Your task to perform on an android device: allow notifications from all sites in the chrome app Image 0: 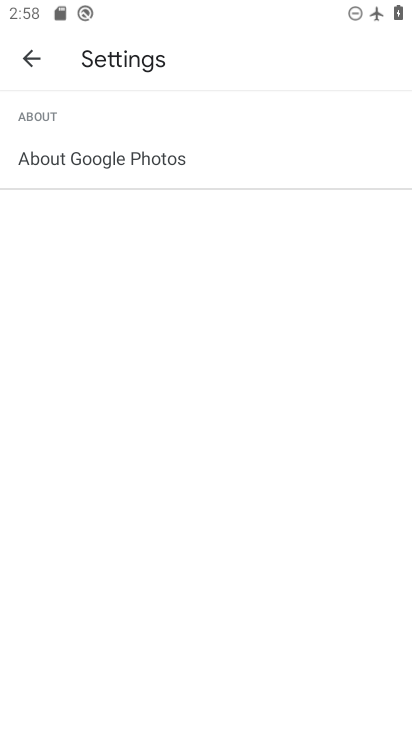
Step 0: press home button
Your task to perform on an android device: allow notifications from all sites in the chrome app Image 1: 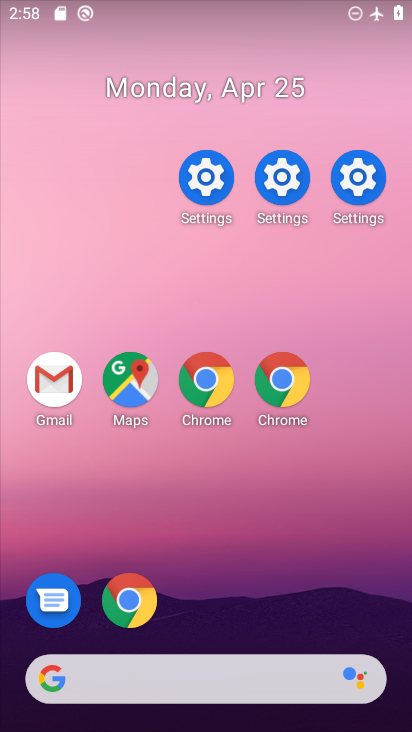
Step 1: drag from (264, 615) to (160, 5)
Your task to perform on an android device: allow notifications from all sites in the chrome app Image 2: 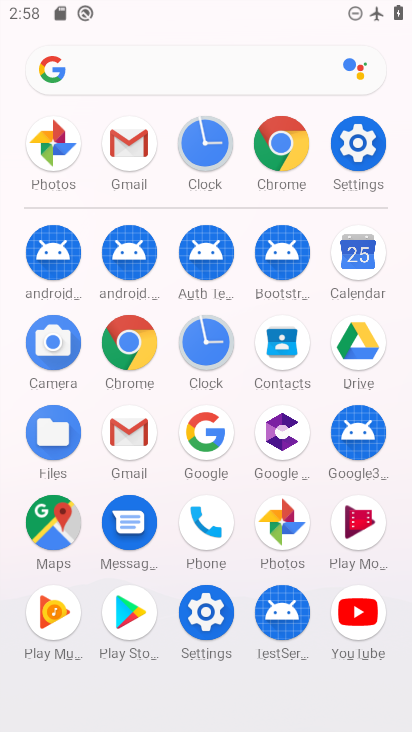
Step 2: click (283, 136)
Your task to perform on an android device: allow notifications from all sites in the chrome app Image 3: 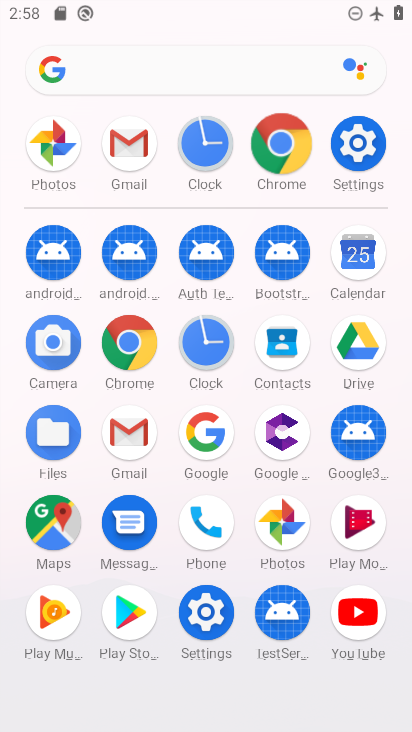
Step 3: click (283, 136)
Your task to perform on an android device: allow notifications from all sites in the chrome app Image 4: 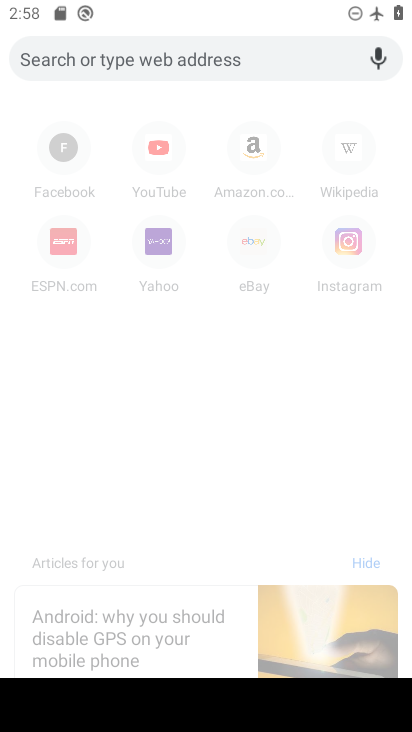
Step 4: press back button
Your task to perform on an android device: allow notifications from all sites in the chrome app Image 5: 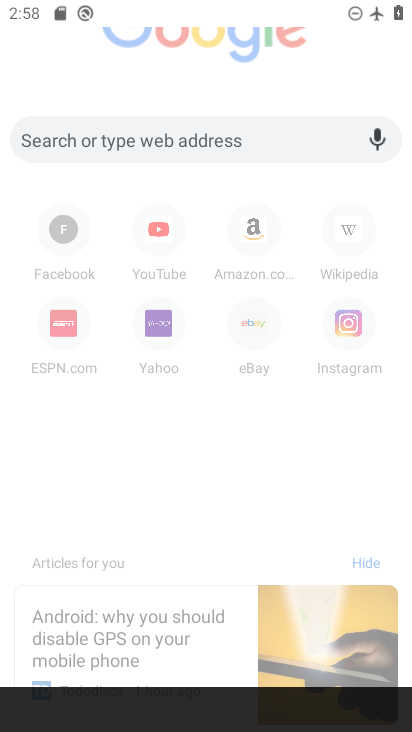
Step 5: press back button
Your task to perform on an android device: allow notifications from all sites in the chrome app Image 6: 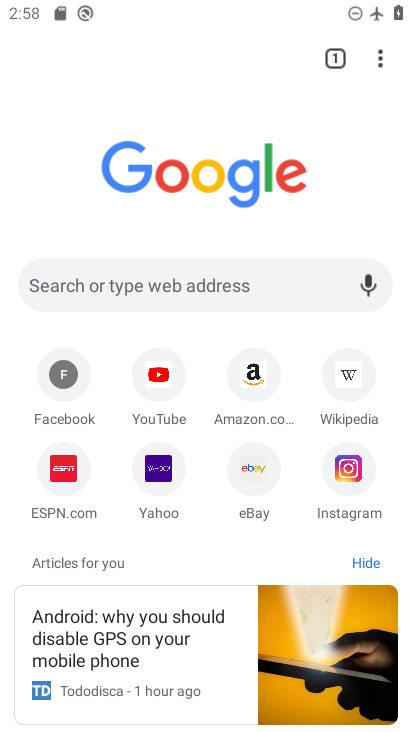
Step 6: press back button
Your task to perform on an android device: allow notifications from all sites in the chrome app Image 7: 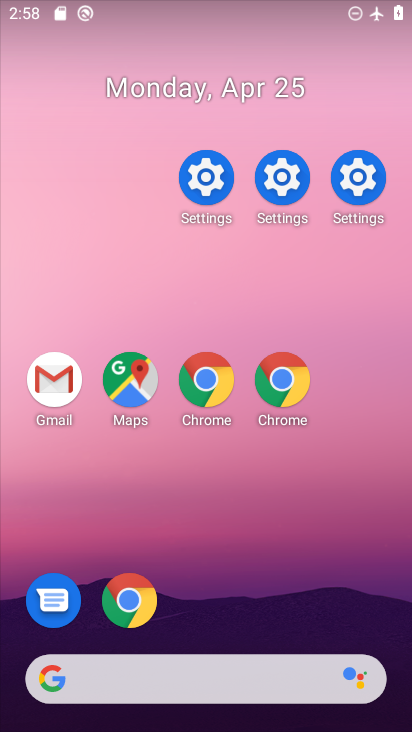
Step 7: drag from (363, 628) to (150, 58)
Your task to perform on an android device: allow notifications from all sites in the chrome app Image 8: 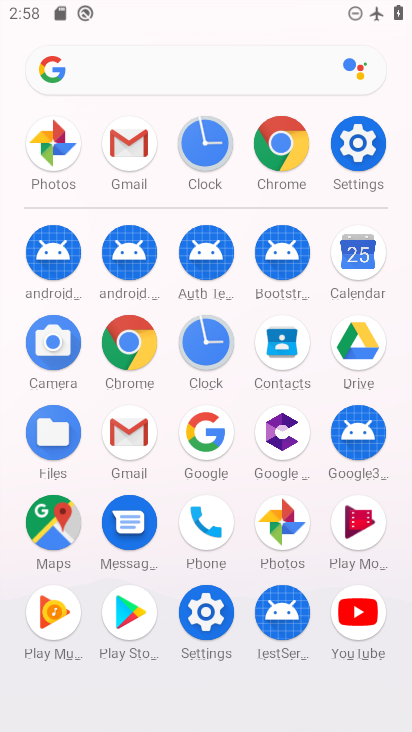
Step 8: click (281, 150)
Your task to perform on an android device: allow notifications from all sites in the chrome app Image 9: 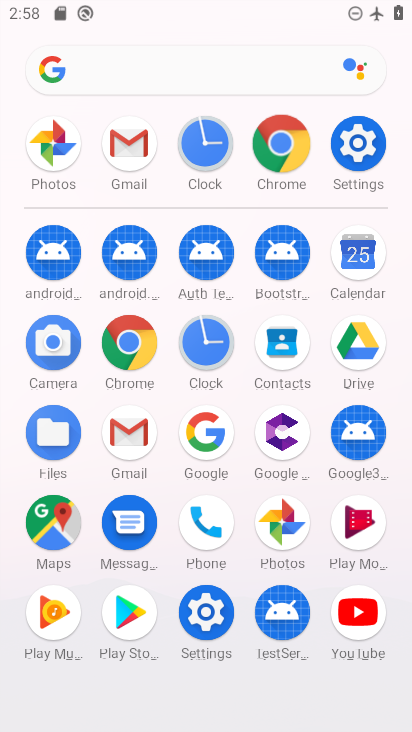
Step 9: click (281, 150)
Your task to perform on an android device: allow notifications from all sites in the chrome app Image 10: 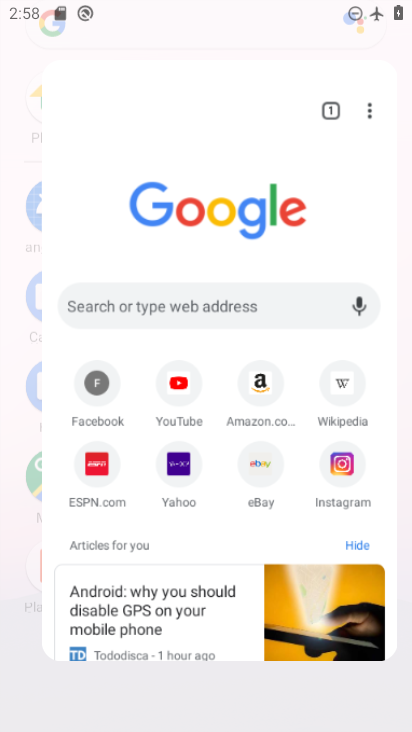
Step 10: click (280, 149)
Your task to perform on an android device: allow notifications from all sites in the chrome app Image 11: 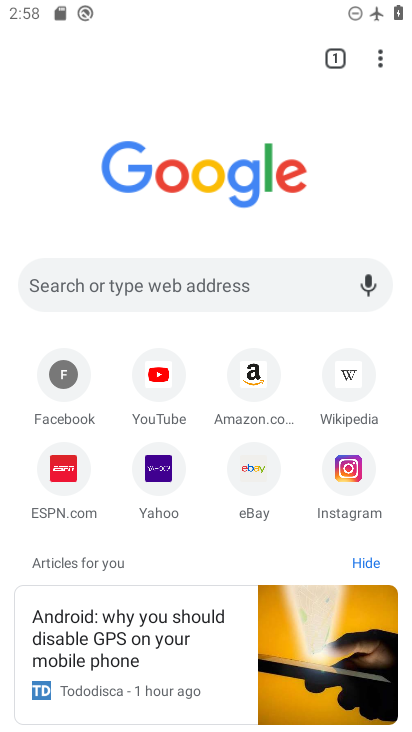
Step 11: drag from (376, 58) to (173, 528)
Your task to perform on an android device: allow notifications from all sites in the chrome app Image 12: 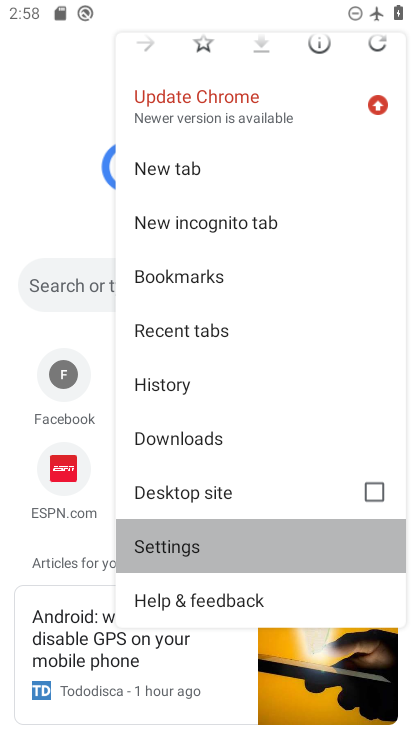
Step 12: click (169, 546)
Your task to perform on an android device: allow notifications from all sites in the chrome app Image 13: 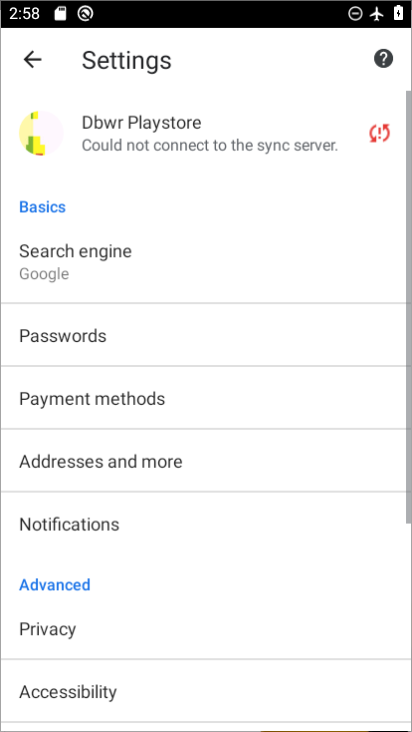
Step 13: click (169, 546)
Your task to perform on an android device: allow notifications from all sites in the chrome app Image 14: 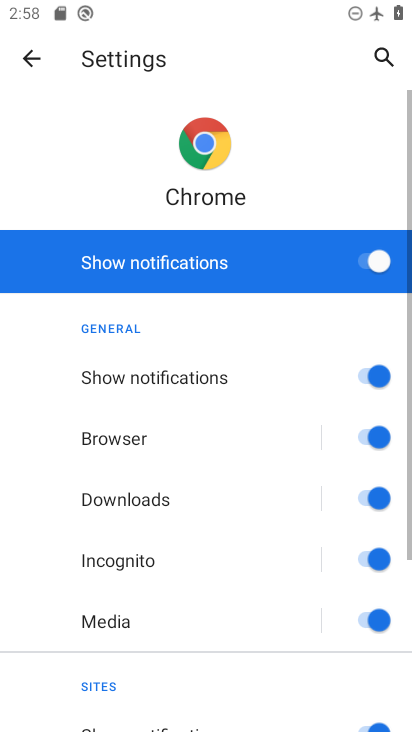
Step 14: click (32, 63)
Your task to perform on an android device: allow notifications from all sites in the chrome app Image 15: 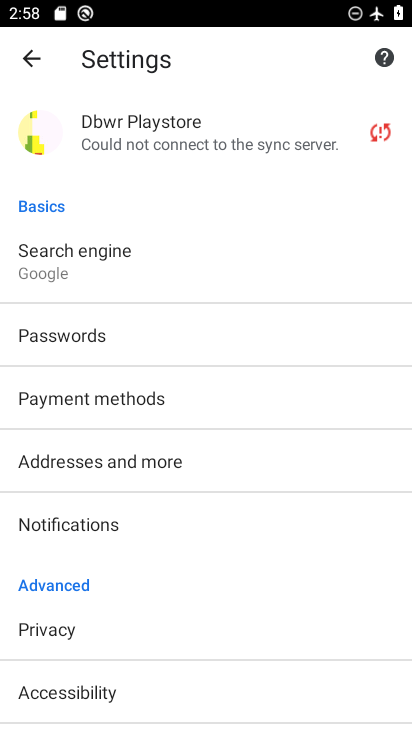
Step 15: drag from (122, 596) to (76, 226)
Your task to perform on an android device: allow notifications from all sites in the chrome app Image 16: 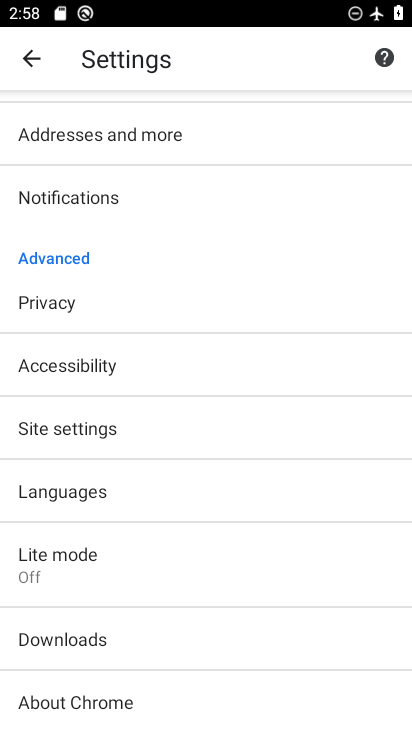
Step 16: click (62, 416)
Your task to perform on an android device: allow notifications from all sites in the chrome app Image 17: 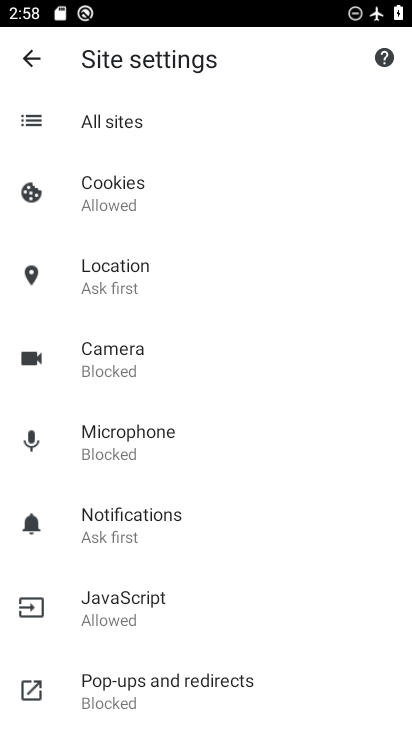
Step 17: click (125, 108)
Your task to perform on an android device: allow notifications from all sites in the chrome app Image 18: 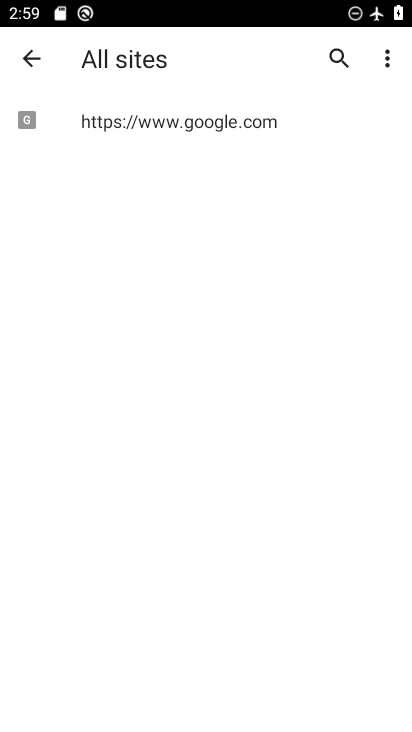
Step 18: click (188, 116)
Your task to perform on an android device: allow notifications from all sites in the chrome app Image 19: 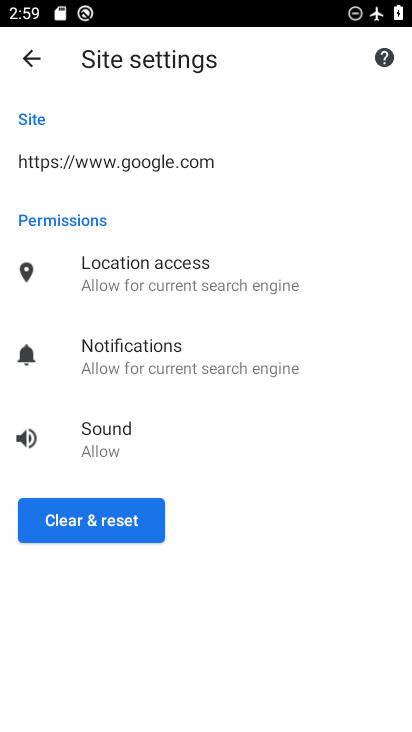
Step 19: task complete